Your task to perform on an android device: Open accessibility settings Image 0: 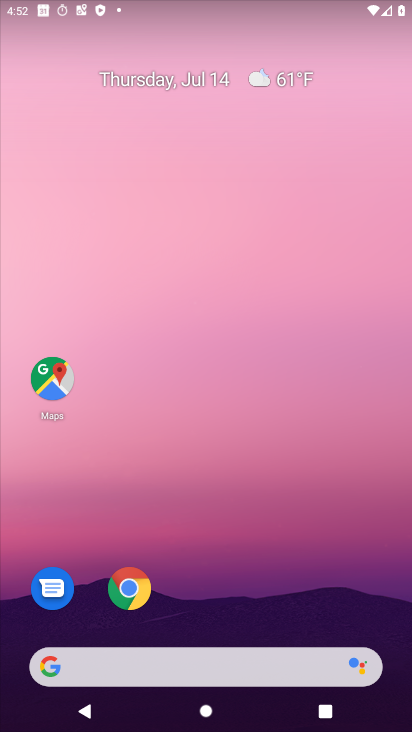
Step 0: drag from (213, 665) to (303, 294)
Your task to perform on an android device: Open accessibility settings Image 1: 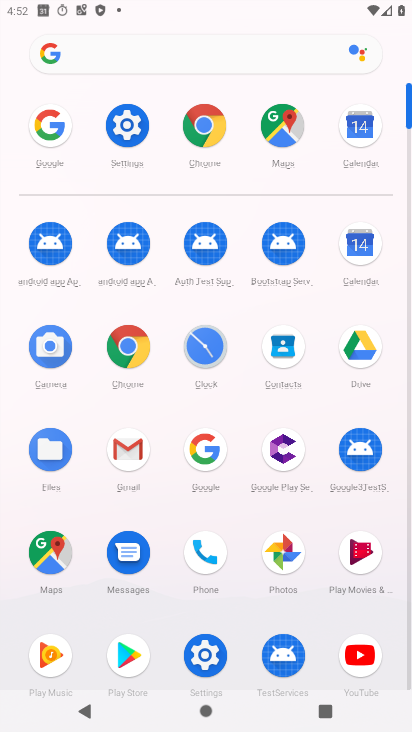
Step 1: click (126, 122)
Your task to perform on an android device: Open accessibility settings Image 2: 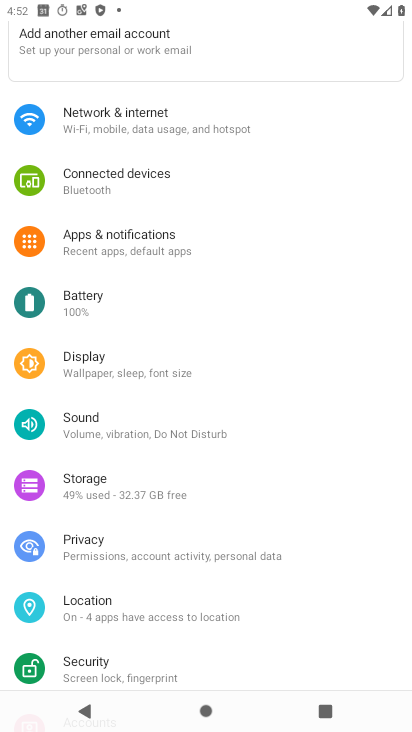
Step 2: drag from (89, 516) to (94, 312)
Your task to perform on an android device: Open accessibility settings Image 3: 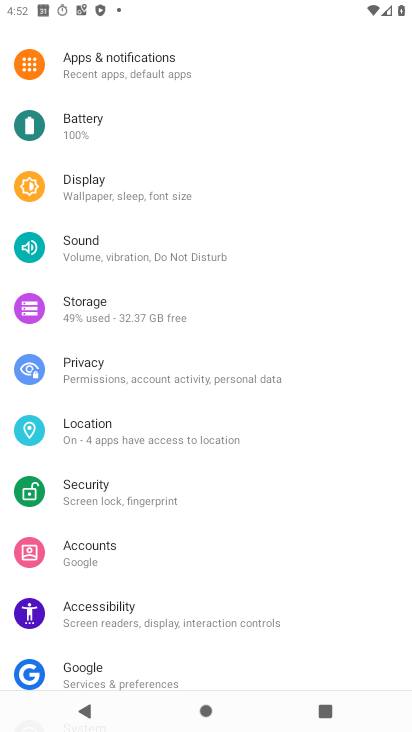
Step 3: drag from (117, 533) to (130, 416)
Your task to perform on an android device: Open accessibility settings Image 4: 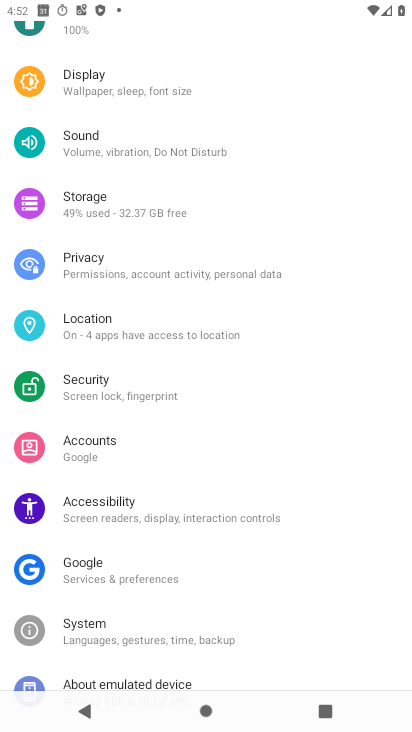
Step 4: click (121, 519)
Your task to perform on an android device: Open accessibility settings Image 5: 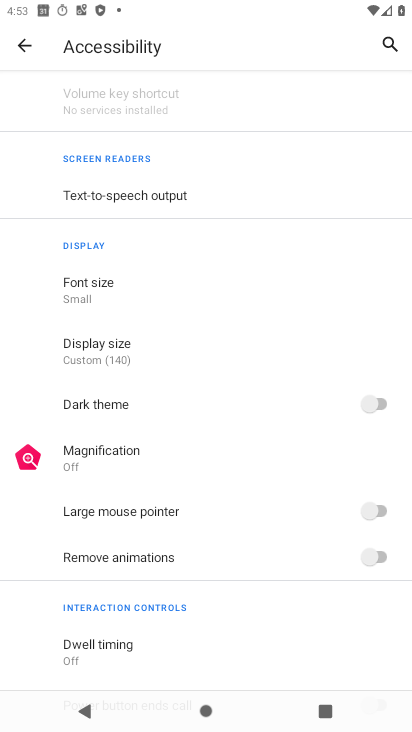
Step 5: task complete